Your task to perform on an android device: change notification settings in the gmail app Image 0: 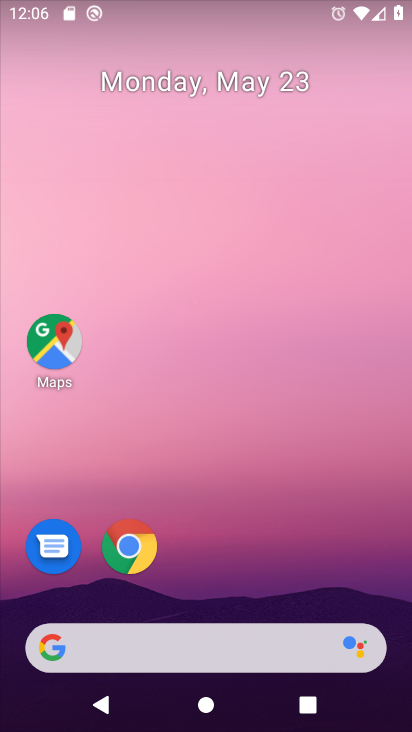
Step 0: drag from (222, 610) to (240, 68)
Your task to perform on an android device: change notification settings in the gmail app Image 1: 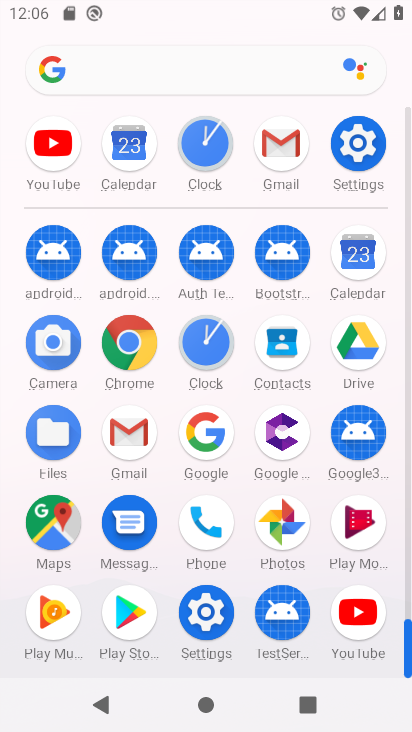
Step 1: click (110, 449)
Your task to perform on an android device: change notification settings in the gmail app Image 2: 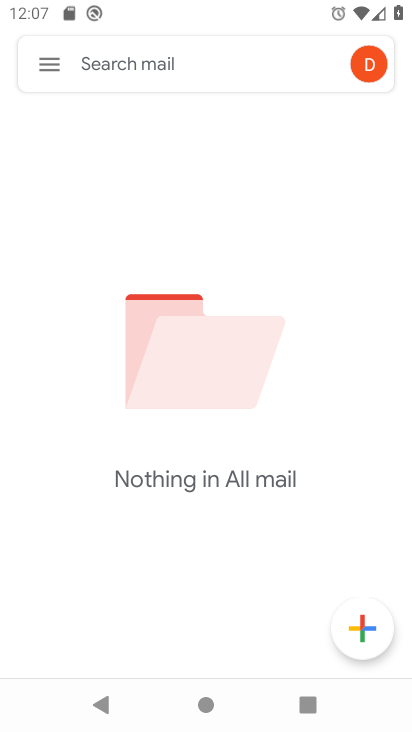
Step 2: click (55, 77)
Your task to perform on an android device: change notification settings in the gmail app Image 3: 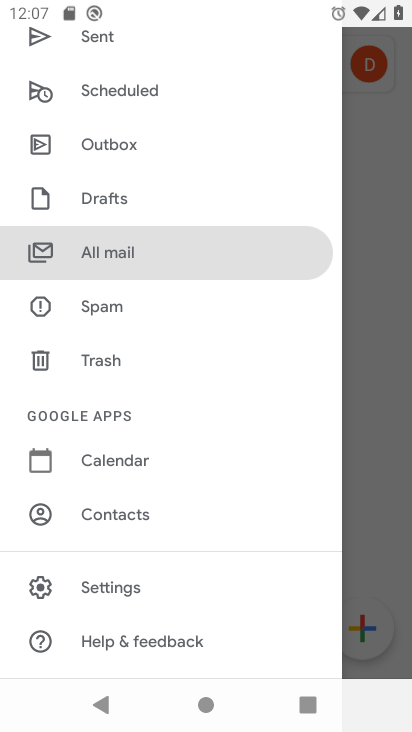
Step 3: click (104, 592)
Your task to perform on an android device: change notification settings in the gmail app Image 4: 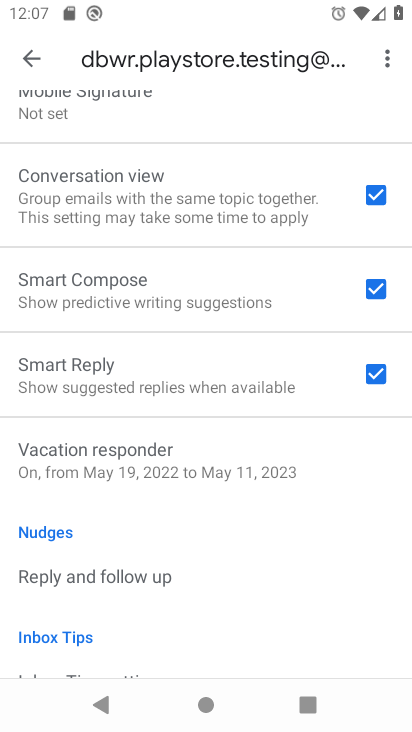
Step 4: click (36, 73)
Your task to perform on an android device: change notification settings in the gmail app Image 5: 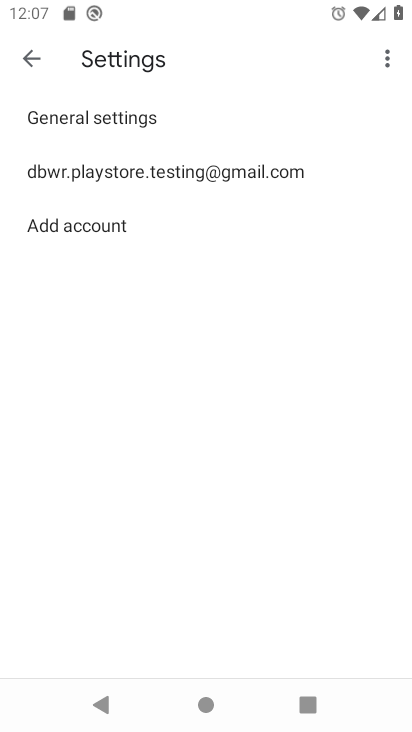
Step 5: click (66, 128)
Your task to perform on an android device: change notification settings in the gmail app Image 6: 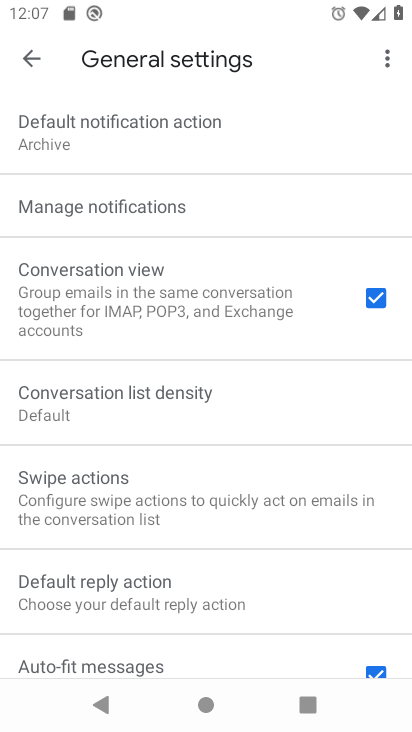
Step 6: click (178, 209)
Your task to perform on an android device: change notification settings in the gmail app Image 7: 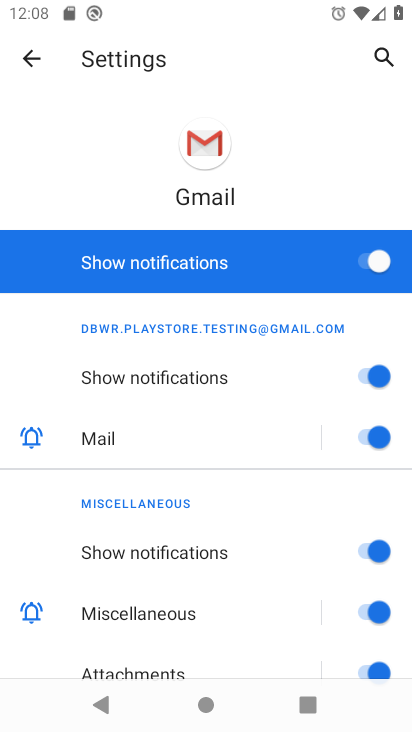
Step 7: drag from (227, 598) to (217, 484)
Your task to perform on an android device: change notification settings in the gmail app Image 8: 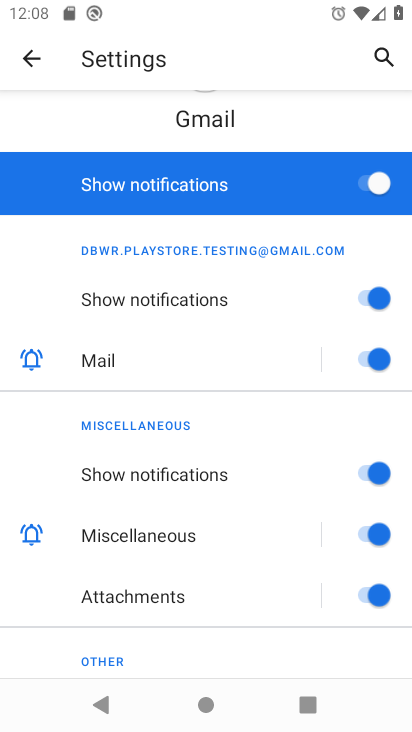
Step 8: click (348, 175)
Your task to perform on an android device: change notification settings in the gmail app Image 9: 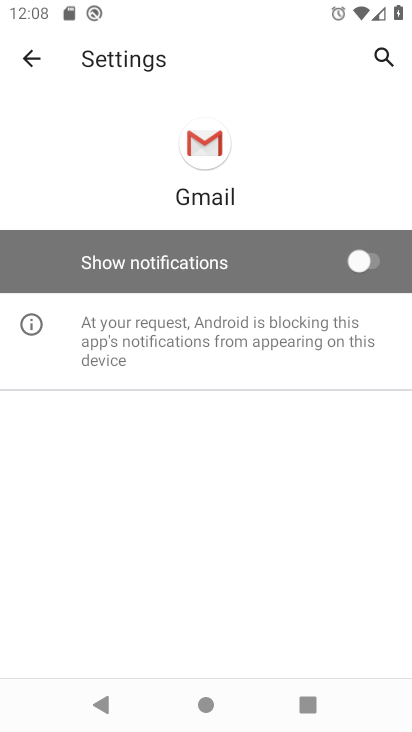
Step 9: task complete